Your task to perform on an android device: read, delete, or share a saved page in the chrome app Image 0: 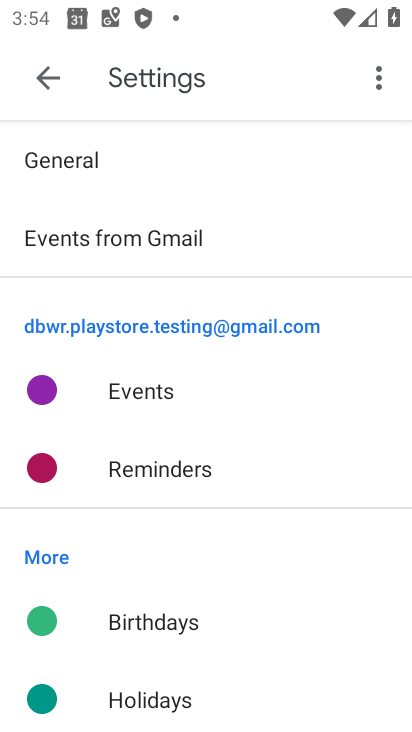
Step 0: press back button
Your task to perform on an android device: read, delete, or share a saved page in the chrome app Image 1: 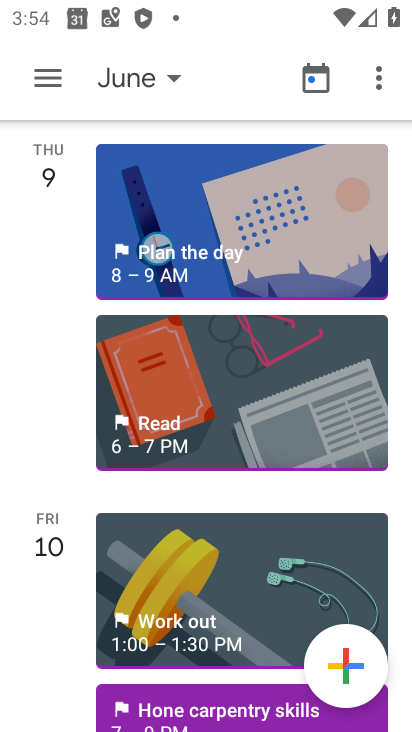
Step 1: press back button
Your task to perform on an android device: read, delete, or share a saved page in the chrome app Image 2: 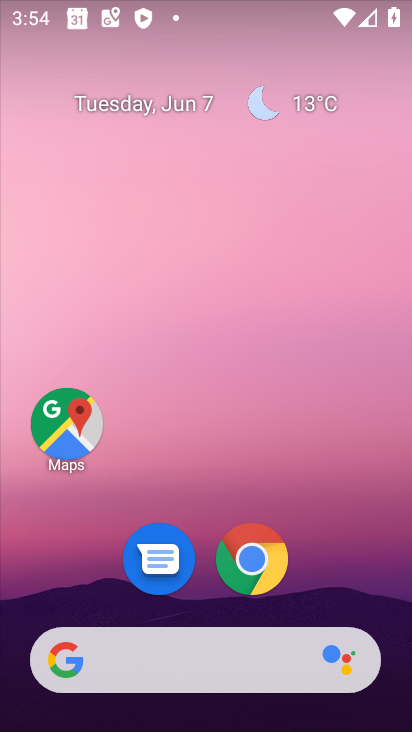
Step 2: click (254, 558)
Your task to perform on an android device: read, delete, or share a saved page in the chrome app Image 3: 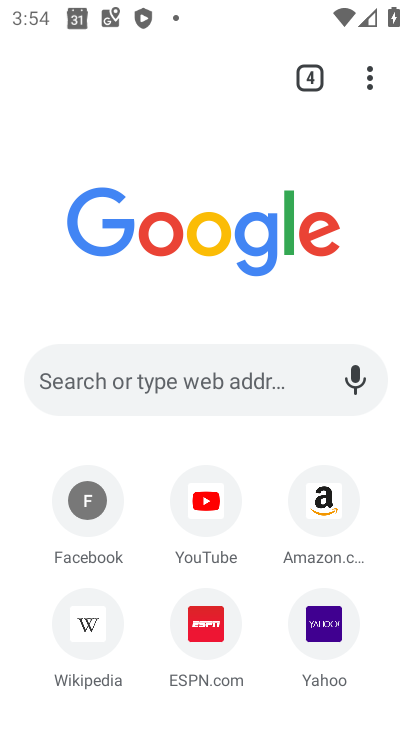
Step 3: click (368, 73)
Your task to perform on an android device: read, delete, or share a saved page in the chrome app Image 4: 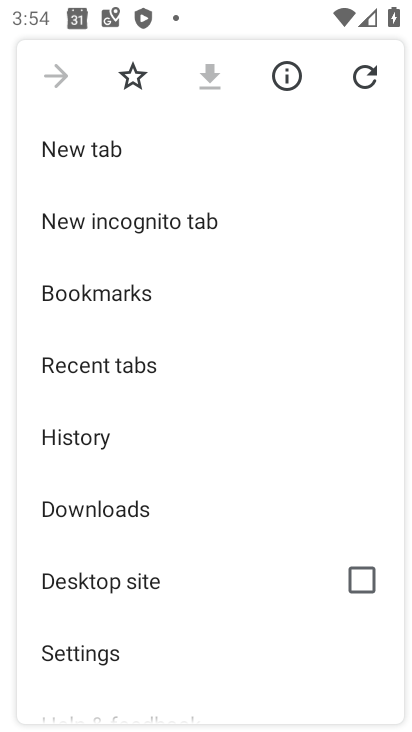
Step 4: click (118, 512)
Your task to perform on an android device: read, delete, or share a saved page in the chrome app Image 5: 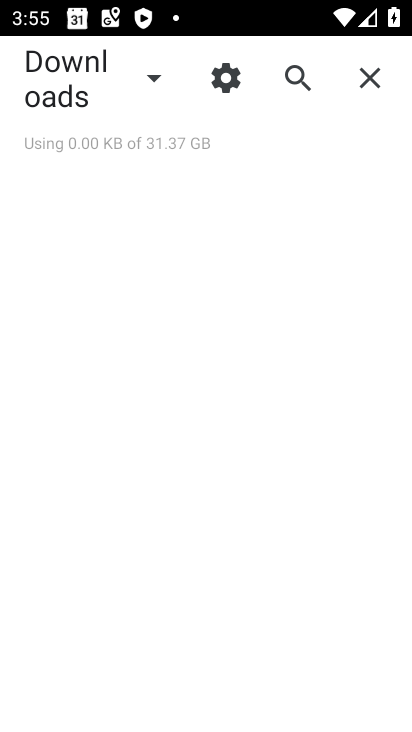
Step 5: click (148, 78)
Your task to perform on an android device: read, delete, or share a saved page in the chrome app Image 6: 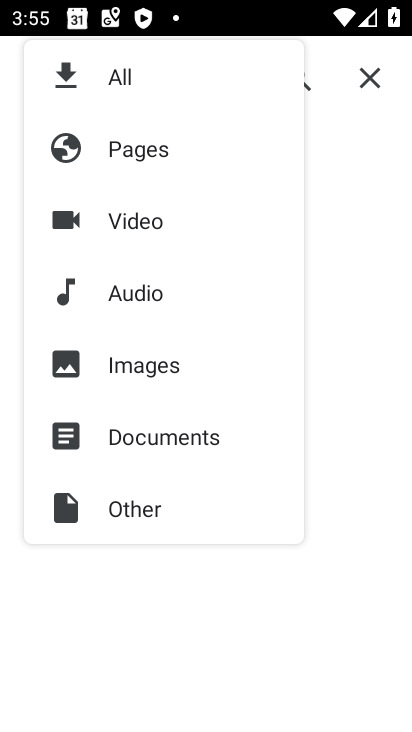
Step 6: click (116, 79)
Your task to perform on an android device: read, delete, or share a saved page in the chrome app Image 7: 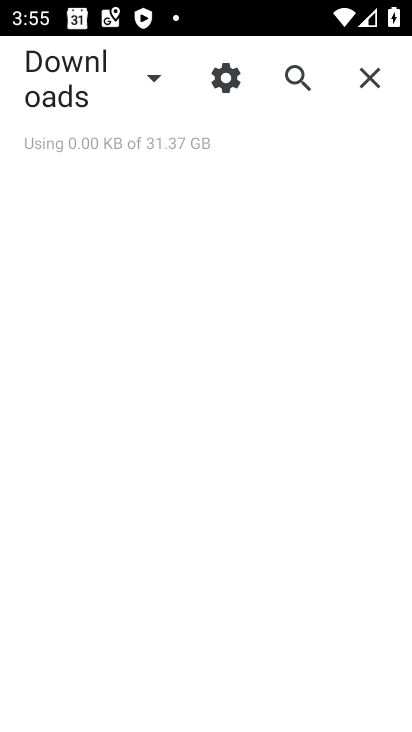
Step 7: task complete